Your task to perform on an android device: Go to Google Image 0: 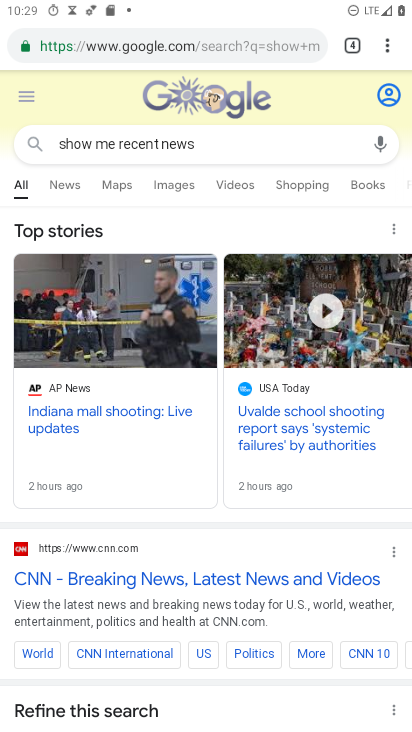
Step 0: press home button
Your task to perform on an android device: Go to Google Image 1: 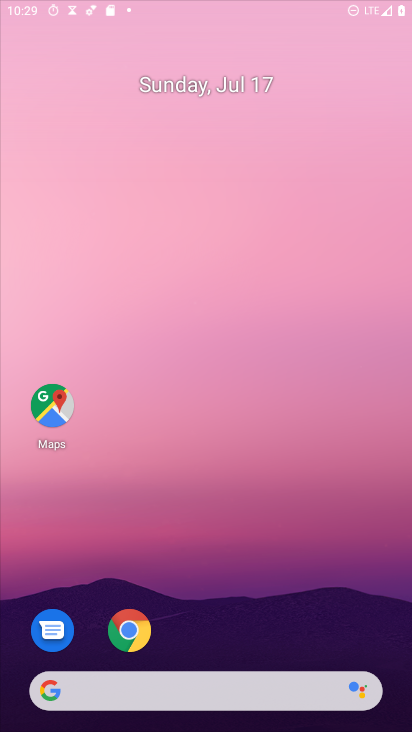
Step 1: drag from (168, 666) to (174, 35)
Your task to perform on an android device: Go to Google Image 2: 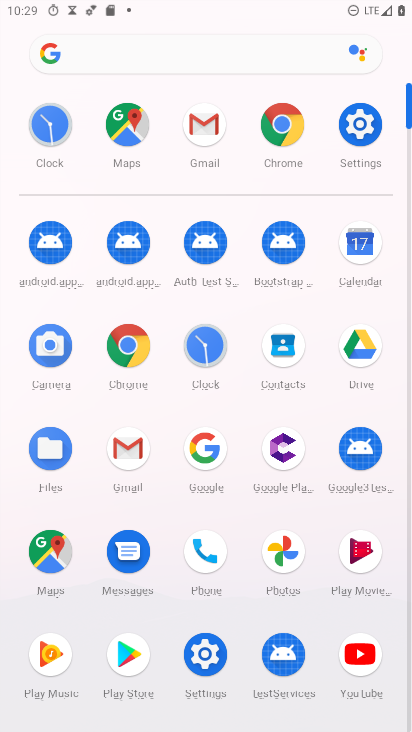
Step 2: click (135, 345)
Your task to perform on an android device: Go to Google Image 3: 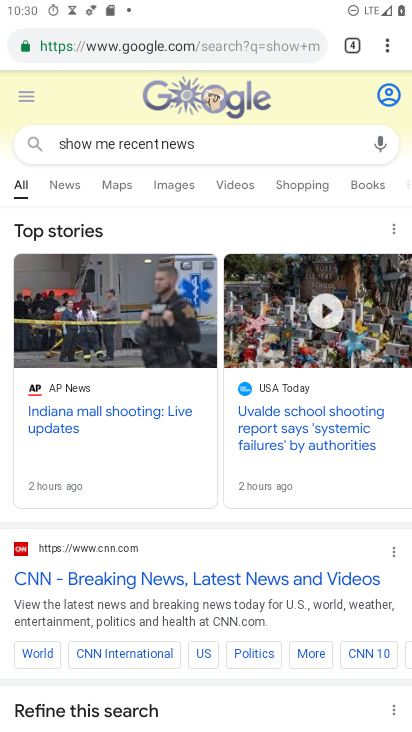
Step 3: task complete